Your task to perform on an android device: Open Google Image 0: 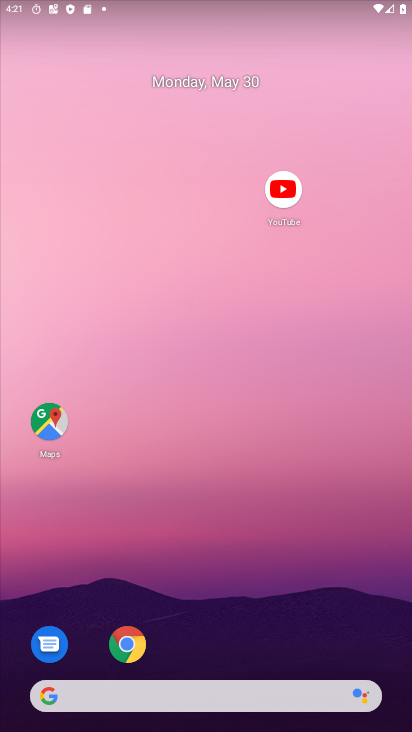
Step 0: click (116, 694)
Your task to perform on an android device: Open Google Image 1: 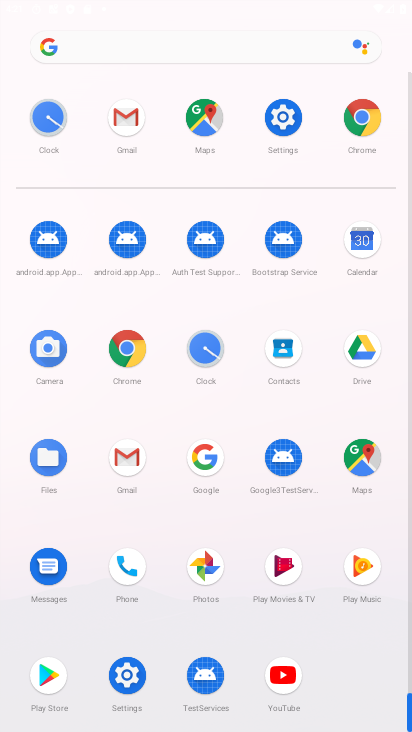
Step 1: click (189, 451)
Your task to perform on an android device: Open Google Image 2: 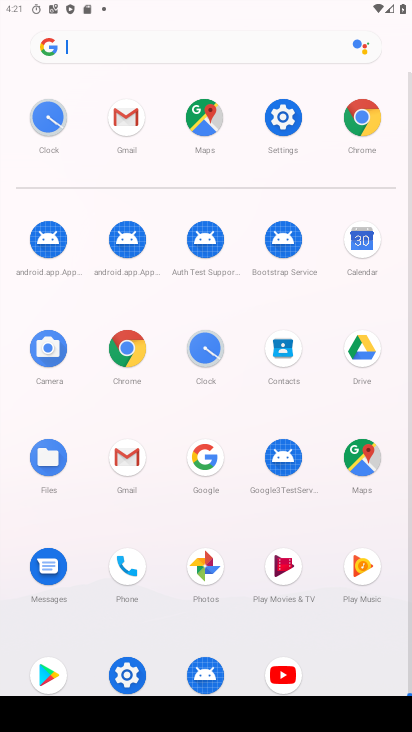
Step 2: click (46, 44)
Your task to perform on an android device: Open Google Image 3: 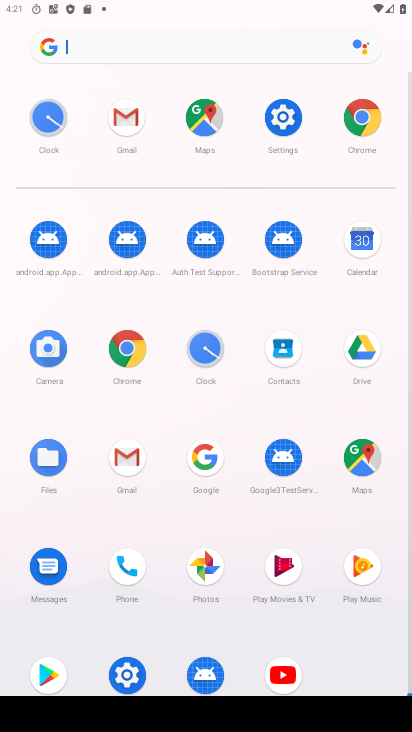
Step 3: click (46, 44)
Your task to perform on an android device: Open Google Image 4: 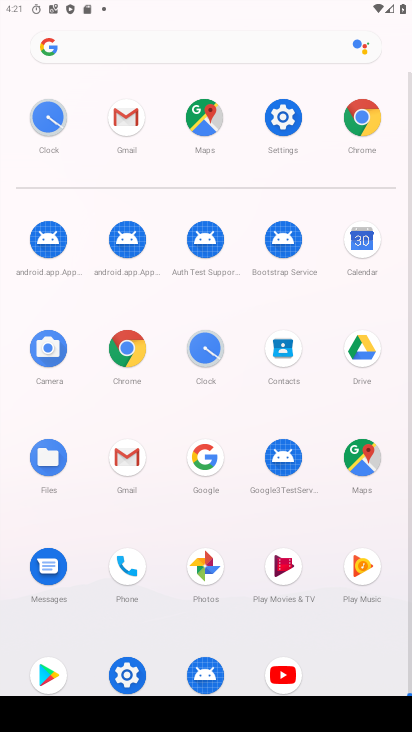
Step 4: click (46, 44)
Your task to perform on an android device: Open Google Image 5: 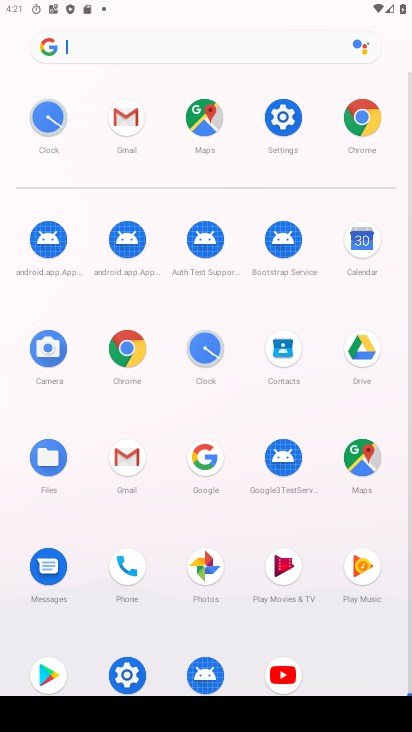
Step 5: click (208, 460)
Your task to perform on an android device: Open Google Image 6: 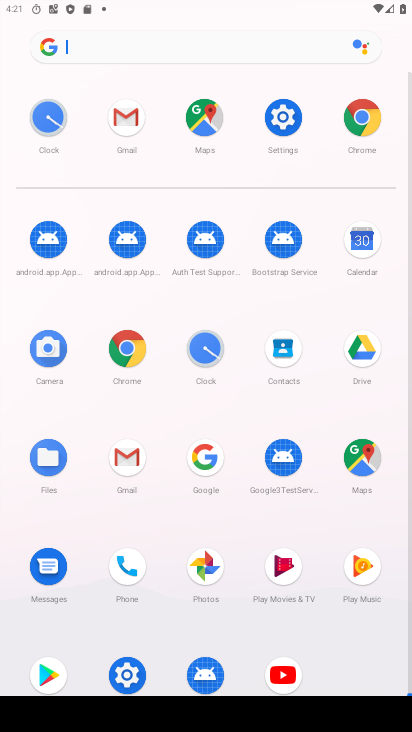
Step 6: click (208, 460)
Your task to perform on an android device: Open Google Image 7: 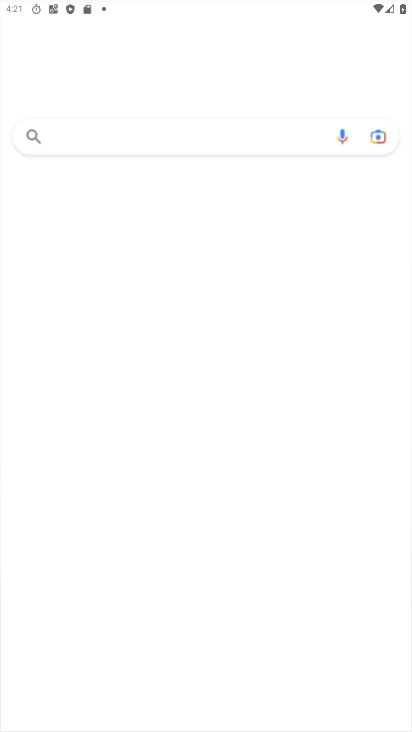
Step 7: click (208, 460)
Your task to perform on an android device: Open Google Image 8: 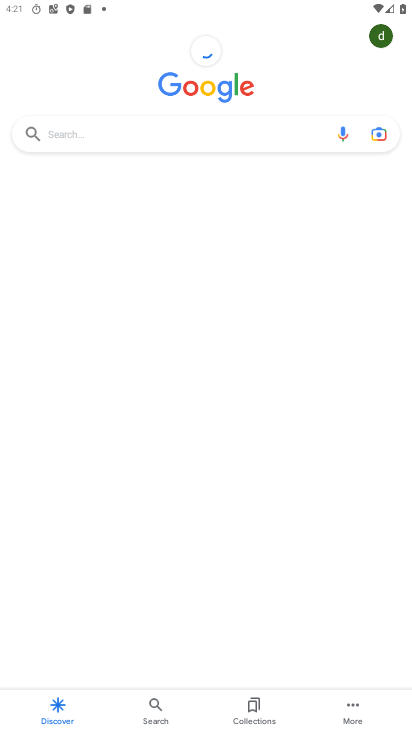
Step 8: task complete